Your task to perform on an android device: Empty the shopping cart on newegg. Search for "macbook pro" on newegg, select the first entry, and add it to the cart. Image 0: 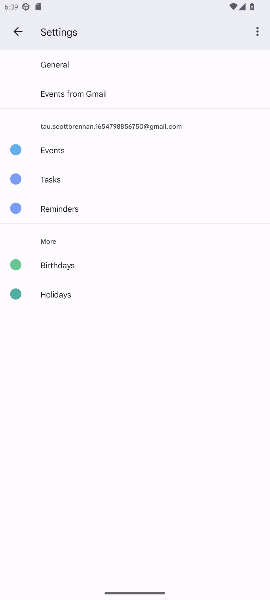
Step 0: press home button
Your task to perform on an android device: Empty the shopping cart on newegg. Search for "macbook pro" on newegg, select the first entry, and add it to the cart. Image 1: 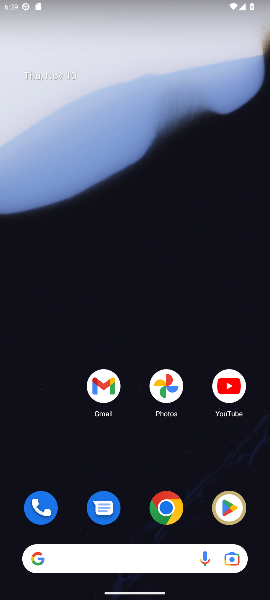
Step 1: click (166, 502)
Your task to perform on an android device: Empty the shopping cart on newegg. Search for "macbook pro" on newegg, select the first entry, and add it to the cart. Image 2: 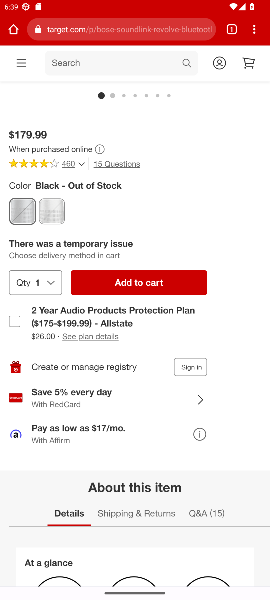
Step 2: click (138, 25)
Your task to perform on an android device: Empty the shopping cart on newegg. Search for "macbook pro" on newegg, select the first entry, and add it to the cart. Image 3: 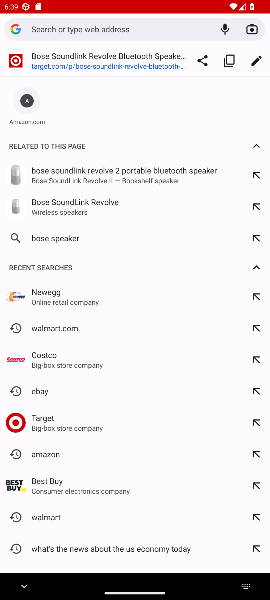
Step 3: click (45, 290)
Your task to perform on an android device: Empty the shopping cart on newegg. Search for "macbook pro" on newegg, select the first entry, and add it to the cart. Image 4: 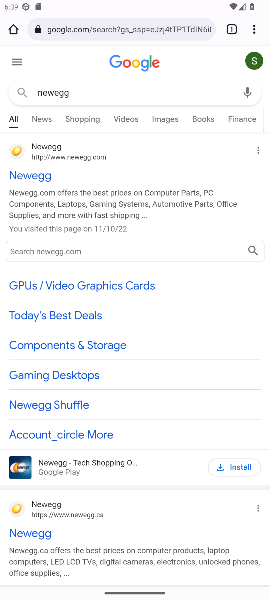
Step 4: click (35, 531)
Your task to perform on an android device: Empty the shopping cart on newegg. Search for "macbook pro" on newegg, select the first entry, and add it to the cart. Image 5: 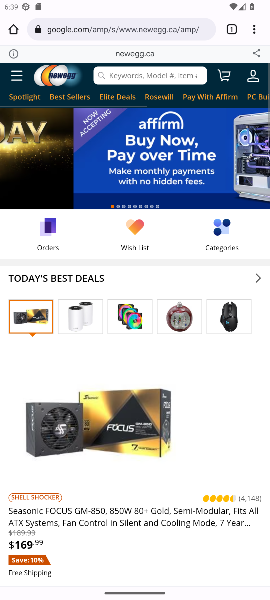
Step 5: click (155, 68)
Your task to perform on an android device: Empty the shopping cart on newegg. Search for "macbook pro" on newegg, select the first entry, and add it to the cart. Image 6: 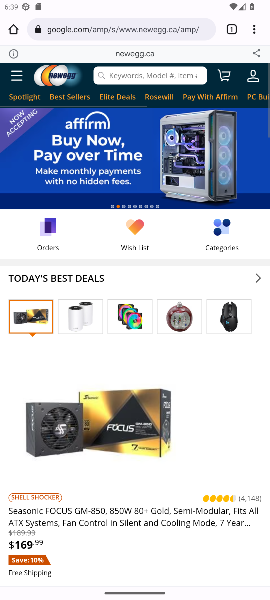
Step 6: click (149, 75)
Your task to perform on an android device: Empty the shopping cart on newegg. Search for "macbook pro" on newegg, select the first entry, and add it to the cart. Image 7: 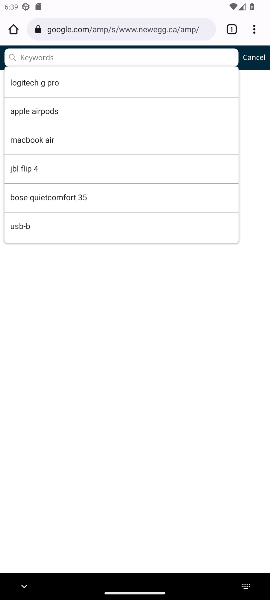
Step 7: type "macbook pro"
Your task to perform on an android device: Empty the shopping cart on newegg. Search for "macbook pro" on newegg, select the first entry, and add it to the cart. Image 8: 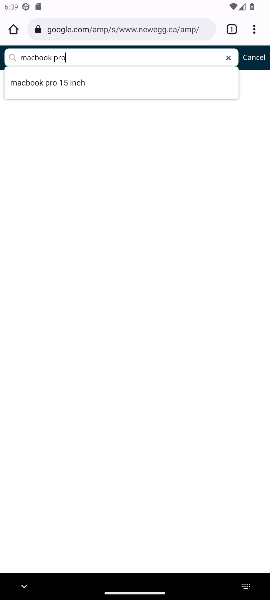
Step 8: press enter
Your task to perform on an android device: Empty the shopping cart on newegg. Search for "macbook pro" on newegg, select the first entry, and add it to the cart. Image 9: 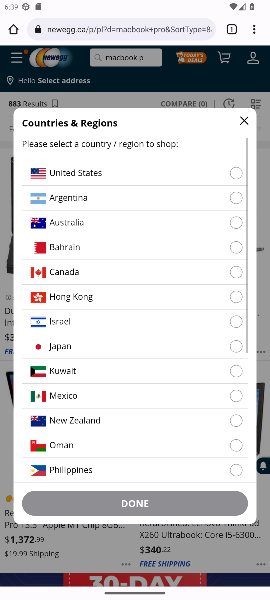
Step 9: click (245, 120)
Your task to perform on an android device: Empty the shopping cart on newegg. Search for "macbook pro" on newegg, select the first entry, and add it to the cart. Image 10: 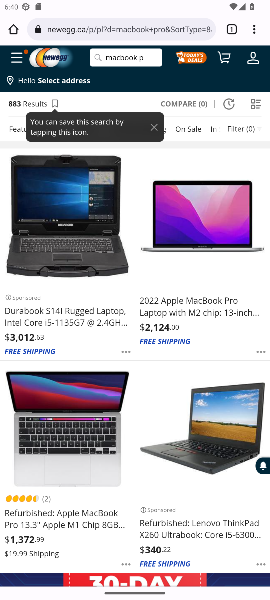
Step 10: click (207, 301)
Your task to perform on an android device: Empty the shopping cart on newegg. Search for "macbook pro" on newegg, select the first entry, and add it to the cart. Image 11: 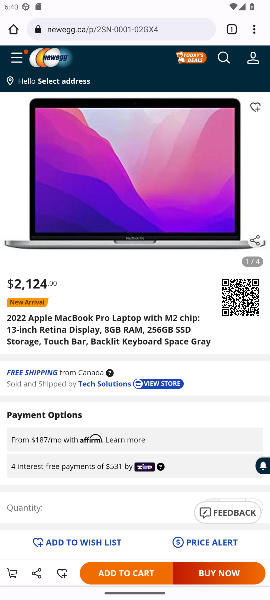
Step 11: task complete